Your task to perform on an android device: check google app version Image 0: 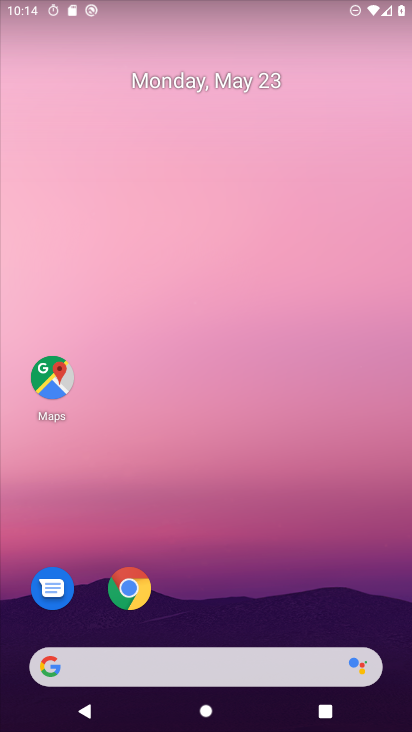
Step 0: press home button
Your task to perform on an android device: check google app version Image 1: 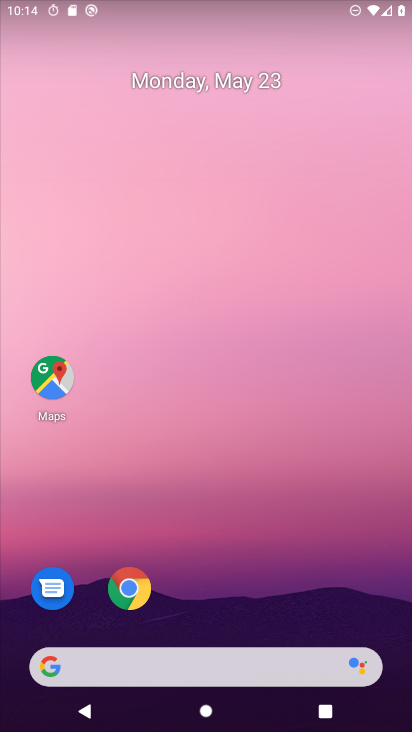
Step 1: drag from (396, 689) to (250, 28)
Your task to perform on an android device: check google app version Image 2: 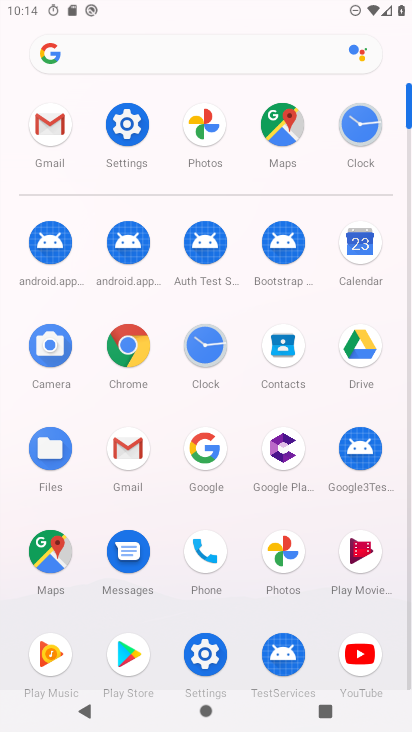
Step 2: click (198, 444)
Your task to perform on an android device: check google app version Image 3: 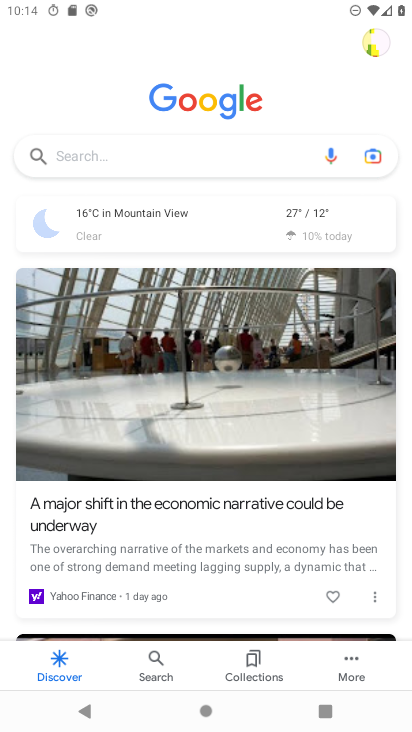
Step 3: click (354, 665)
Your task to perform on an android device: check google app version Image 4: 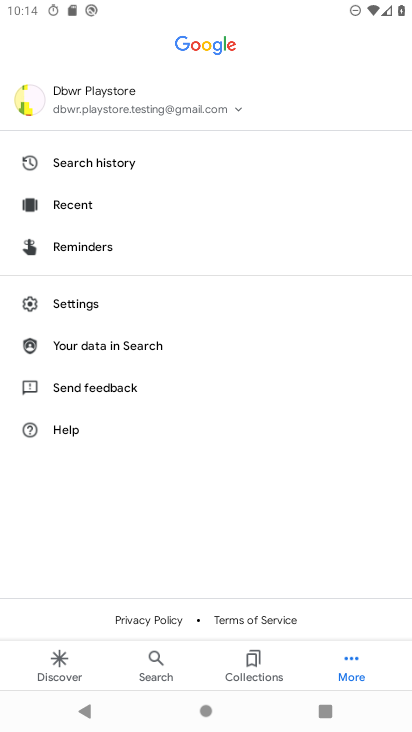
Step 4: click (67, 303)
Your task to perform on an android device: check google app version Image 5: 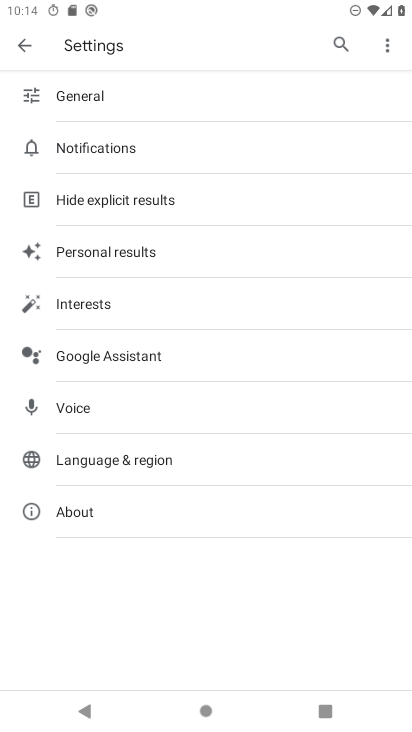
Step 5: click (84, 502)
Your task to perform on an android device: check google app version Image 6: 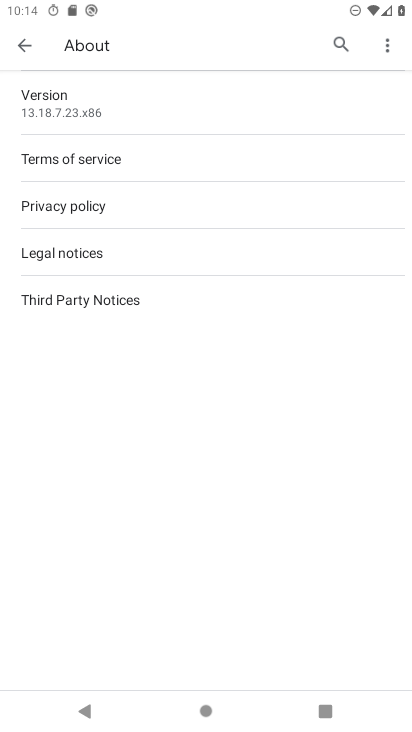
Step 6: click (99, 98)
Your task to perform on an android device: check google app version Image 7: 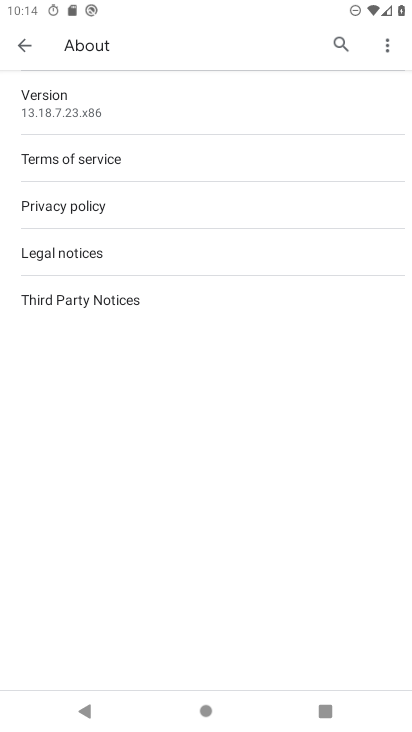
Step 7: task complete